Your task to perform on an android device: Show me popular videos on Youtube Image 0: 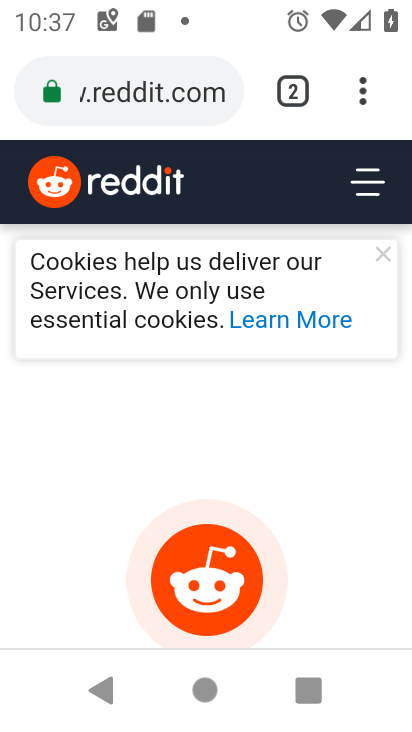
Step 0: press home button
Your task to perform on an android device: Show me popular videos on Youtube Image 1: 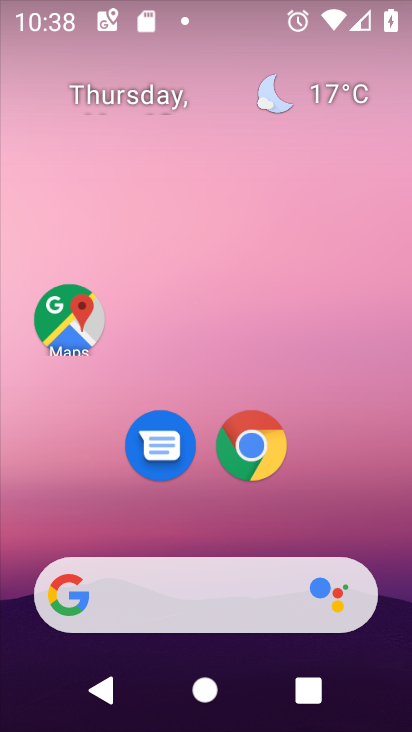
Step 1: drag from (206, 528) to (212, 264)
Your task to perform on an android device: Show me popular videos on Youtube Image 2: 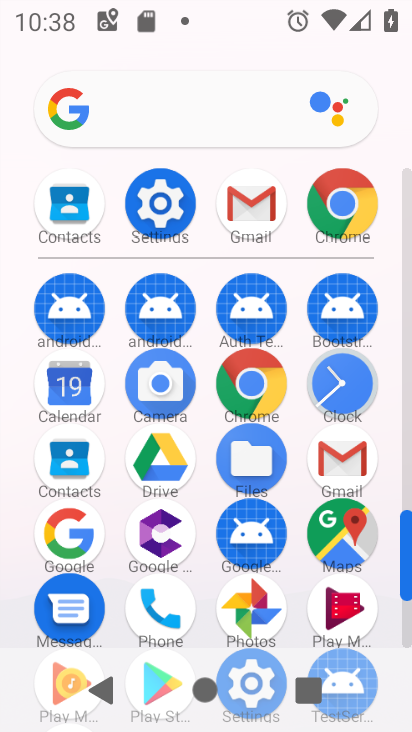
Step 2: drag from (199, 270) to (212, 74)
Your task to perform on an android device: Show me popular videos on Youtube Image 3: 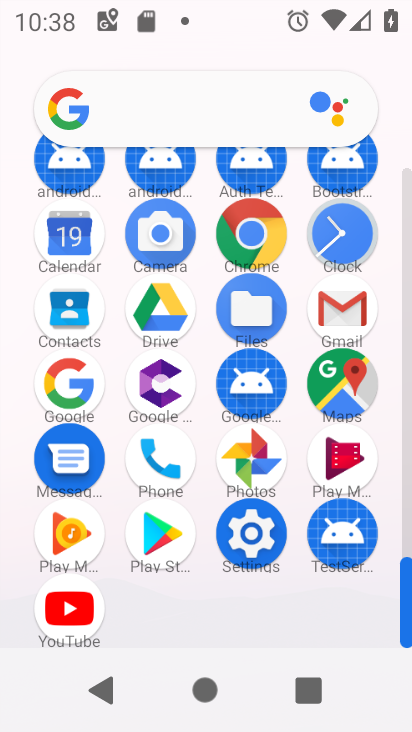
Step 3: click (86, 610)
Your task to perform on an android device: Show me popular videos on Youtube Image 4: 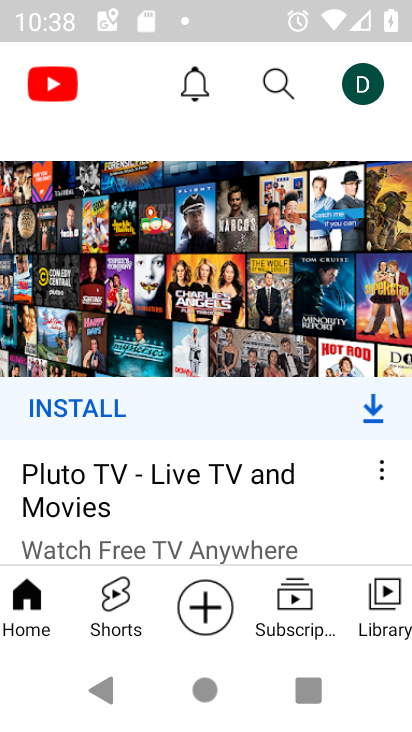
Step 4: drag from (27, 214) to (125, 633)
Your task to perform on an android device: Show me popular videos on Youtube Image 5: 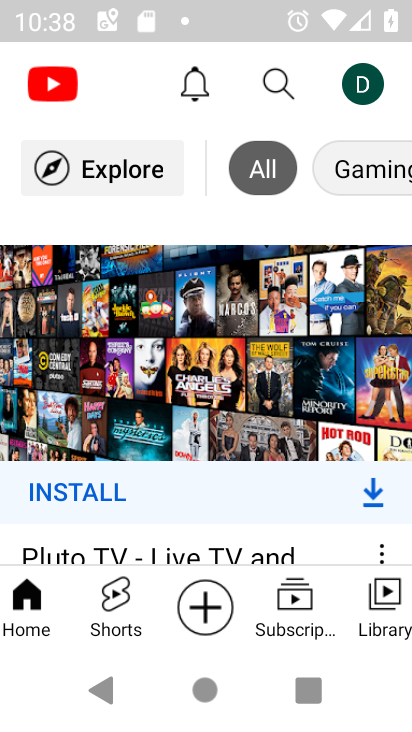
Step 5: click (92, 170)
Your task to perform on an android device: Show me popular videos on Youtube Image 6: 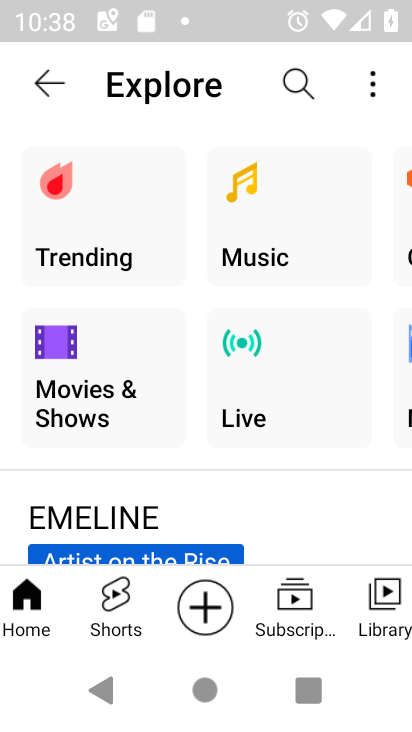
Step 6: click (42, 246)
Your task to perform on an android device: Show me popular videos on Youtube Image 7: 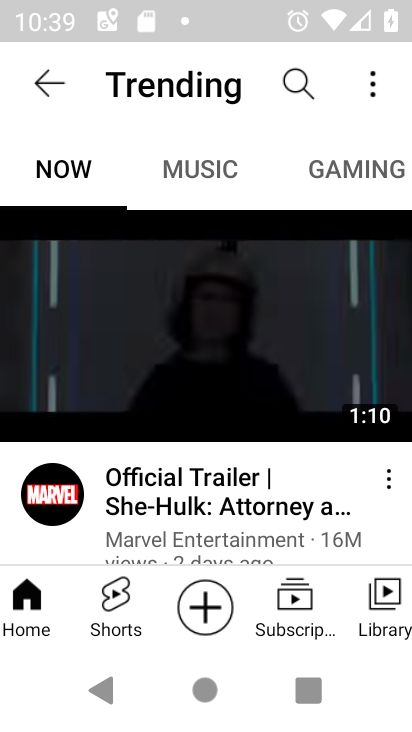
Step 7: task complete